Your task to perform on an android device: Go to ESPN.com Image 0: 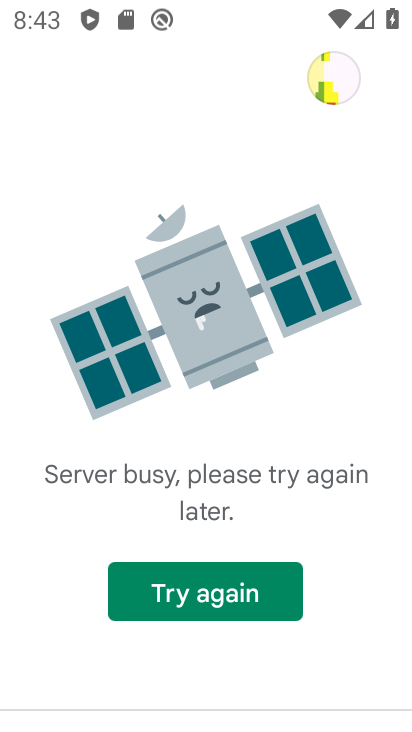
Step 0: press home button
Your task to perform on an android device: Go to ESPN.com Image 1: 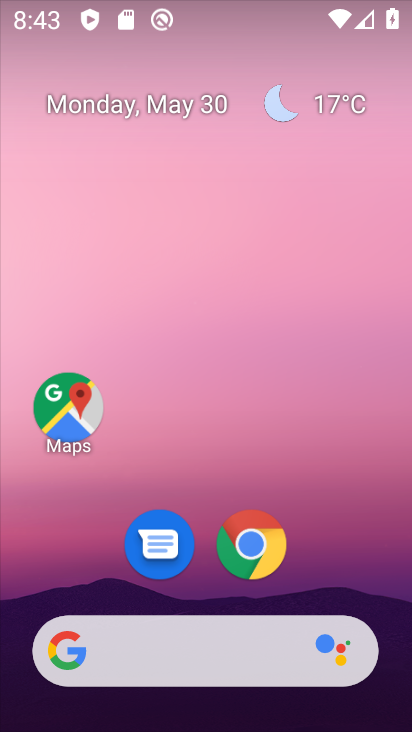
Step 1: click (250, 547)
Your task to perform on an android device: Go to ESPN.com Image 2: 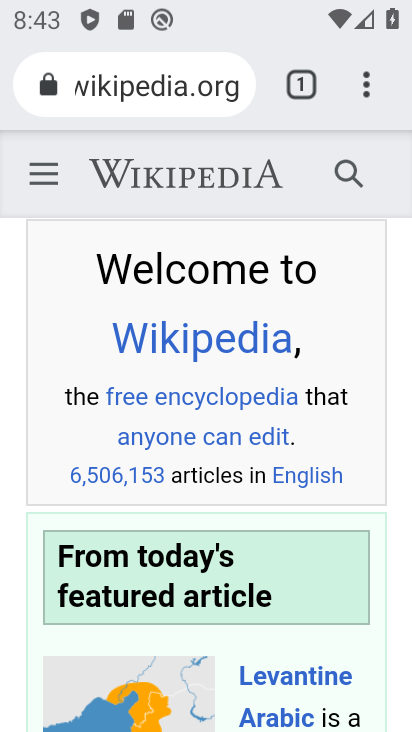
Step 2: click (194, 91)
Your task to perform on an android device: Go to ESPN.com Image 3: 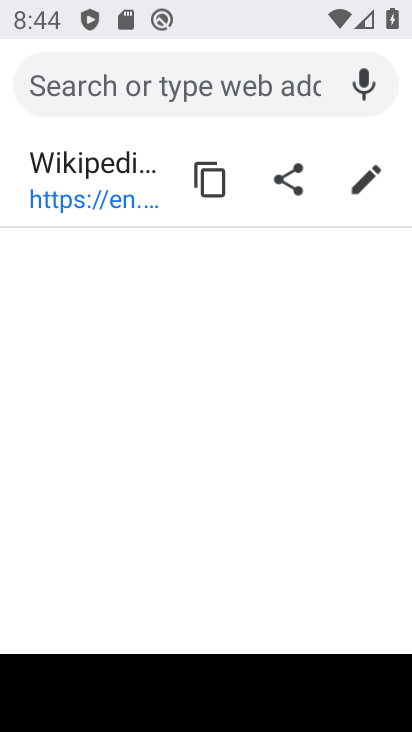
Step 3: type "ESPN.com"
Your task to perform on an android device: Go to ESPN.com Image 4: 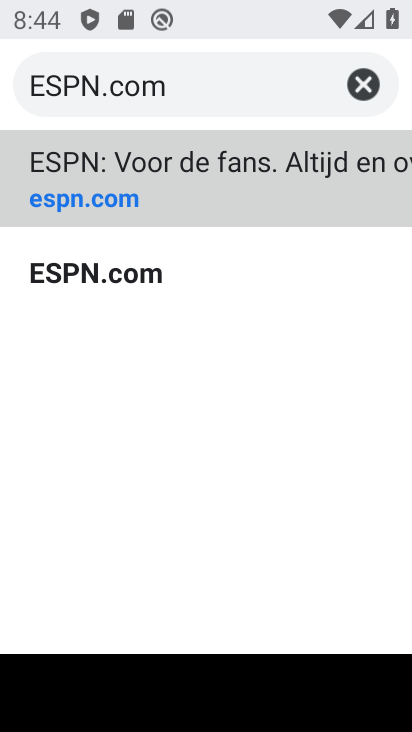
Step 4: click (134, 280)
Your task to perform on an android device: Go to ESPN.com Image 5: 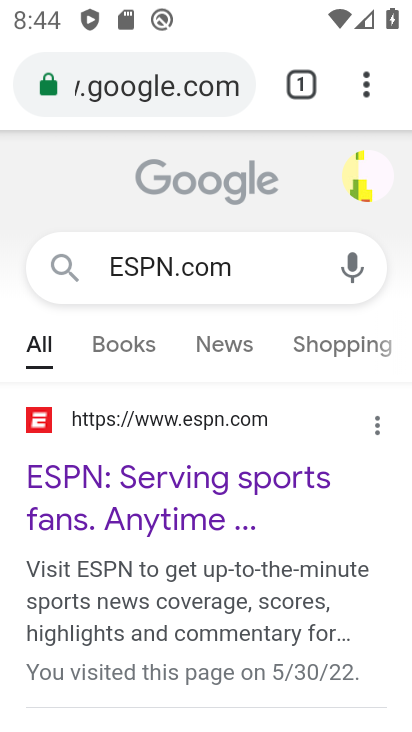
Step 5: drag from (204, 516) to (140, 354)
Your task to perform on an android device: Go to ESPN.com Image 6: 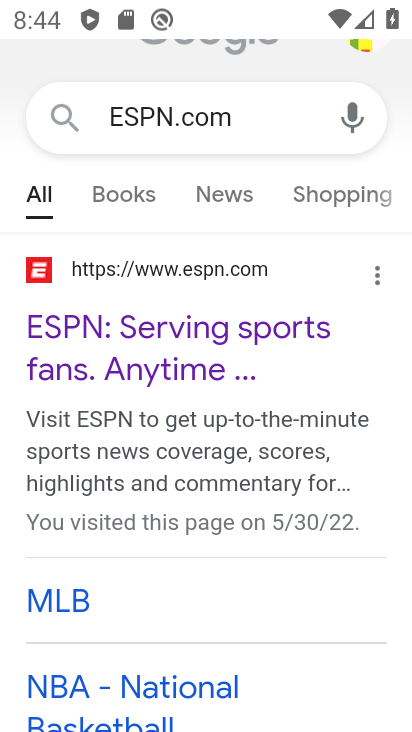
Step 6: click (138, 360)
Your task to perform on an android device: Go to ESPN.com Image 7: 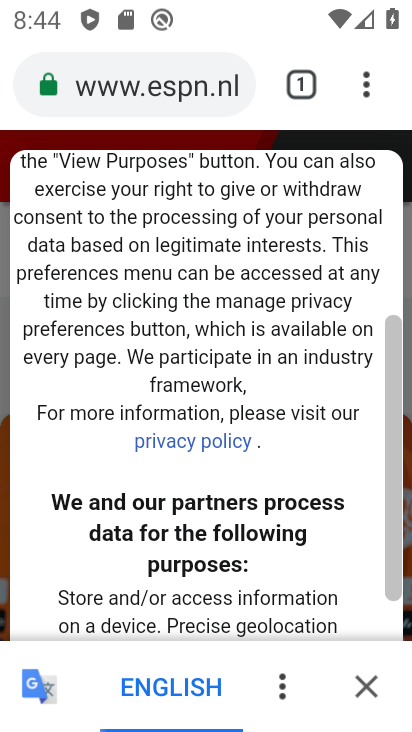
Step 7: task complete